Your task to perform on an android device: toggle location history Image 0: 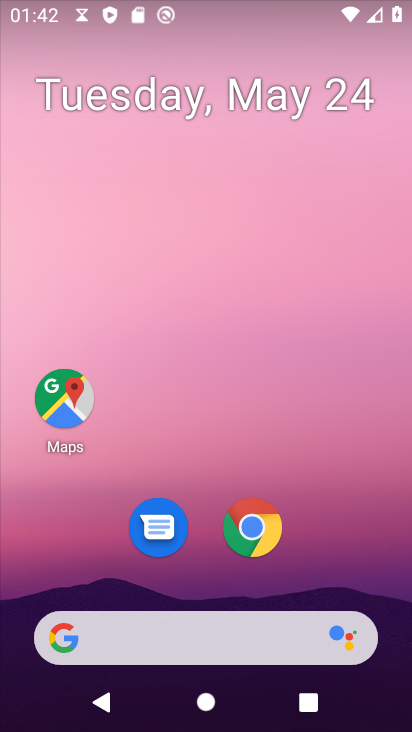
Step 0: press home button
Your task to perform on an android device: toggle location history Image 1: 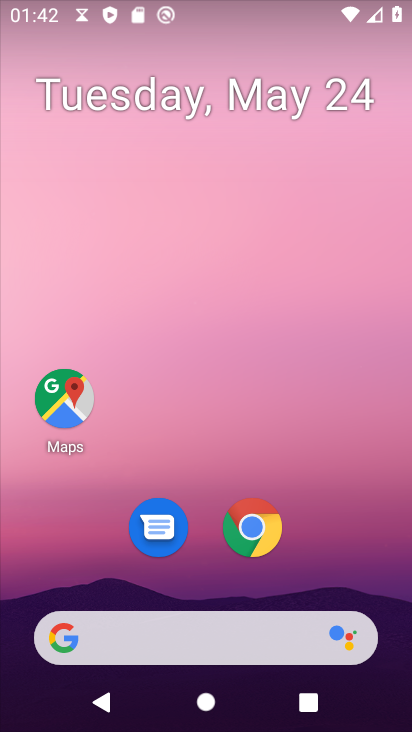
Step 1: click (60, 404)
Your task to perform on an android device: toggle location history Image 2: 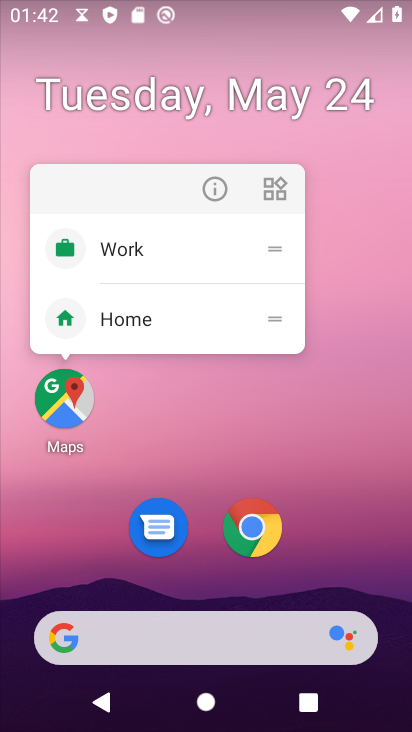
Step 2: click (60, 404)
Your task to perform on an android device: toggle location history Image 3: 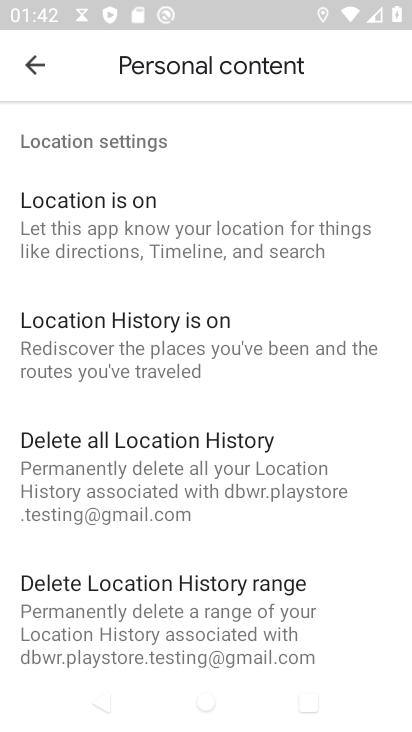
Step 3: click (168, 347)
Your task to perform on an android device: toggle location history Image 4: 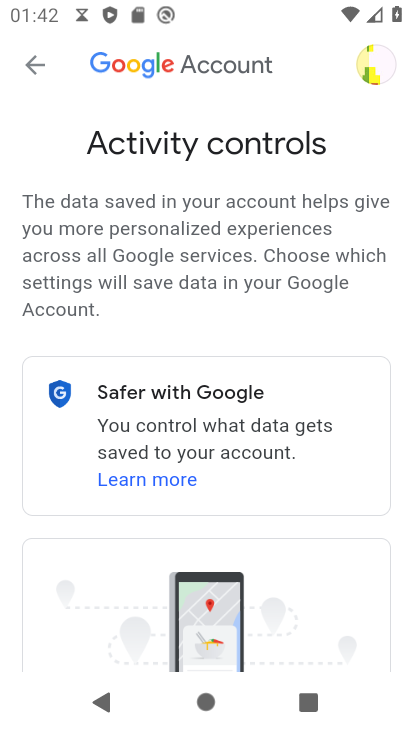
Step 4: drag from (142, 627) to (323, 267)
Your task to perform on an android device: toggle location history Image 5: 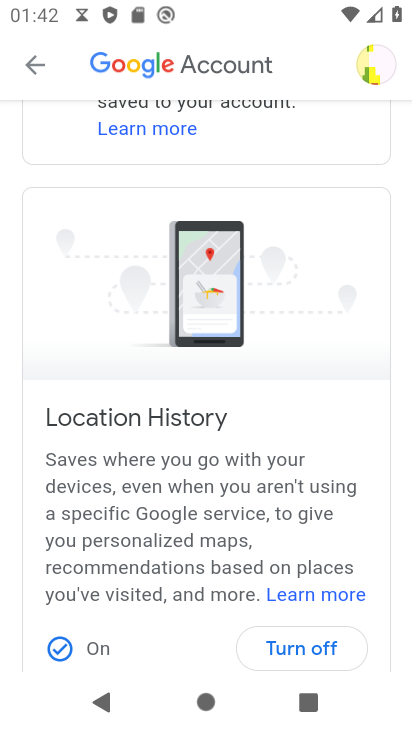
Step 5: click (310, 645)
Your task to perform on an android device: toggle location history Image 6: 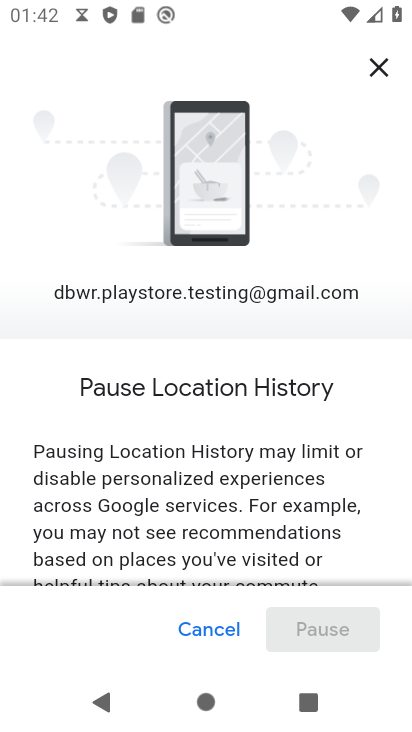
Step 6: drag from (266, 528) to (410, 187)
Your task to perform on an android device: toggle location history Image 7: 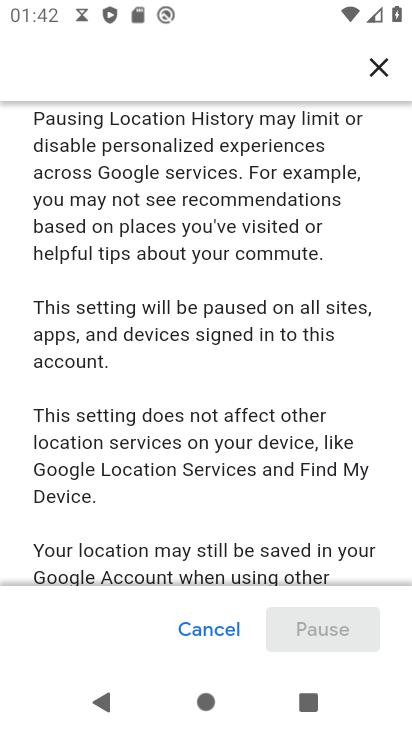
Step 7: drag from (275, 527) to (345, 182)
Your task to perform on an android device: toggle location history Image 8: 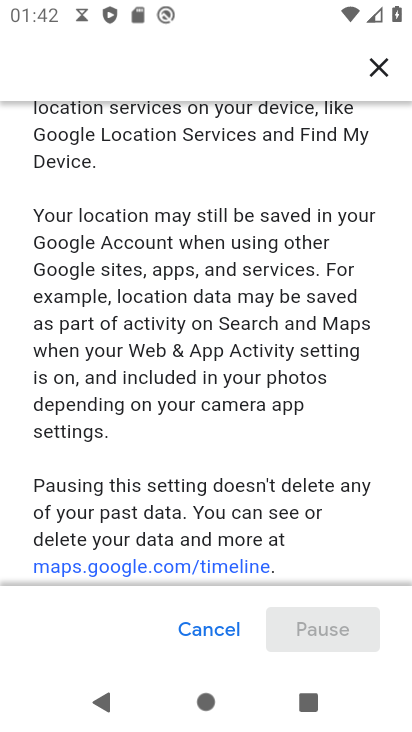
Step 8: drag from (240, 506) to (317, 229)
Your task to perform on an android device: toggle location history Image 9: 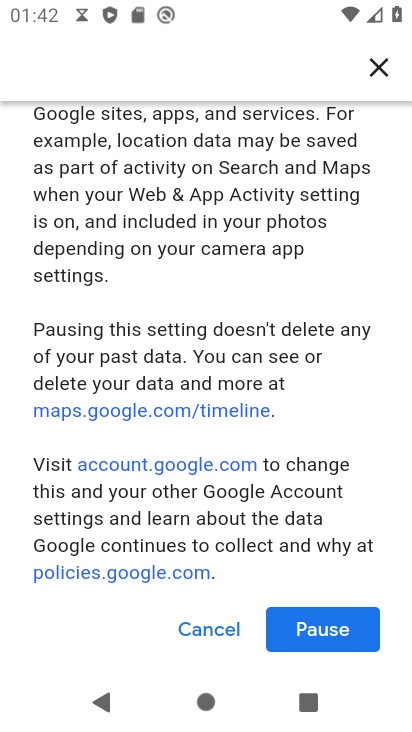
Step 9: click (325, 626)
Your task to perform on an android device: toggle location history Image 10: 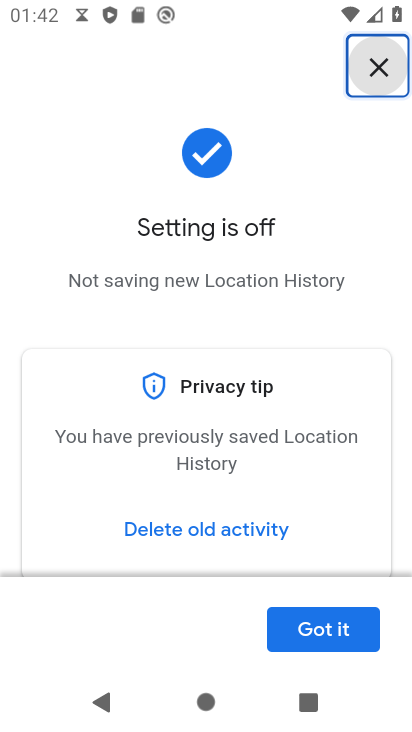
Step 10: click (329, 631)
Your task to perform on an android device: toggle location history Image 11: 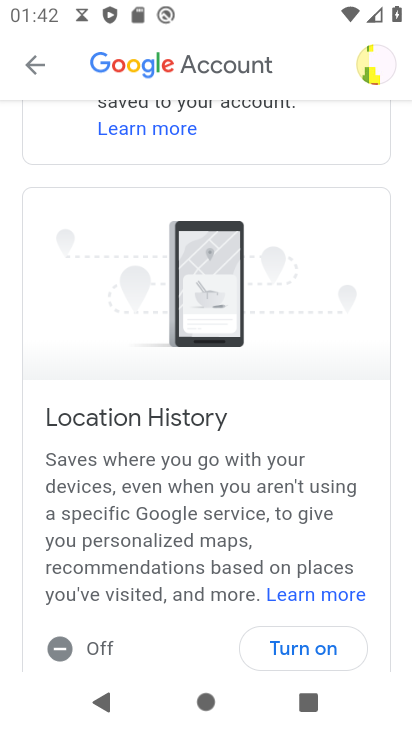
Step 11: drag from (261, 570) to (353, 299)
Your task to perform on an android device: toggle location history Image 12: 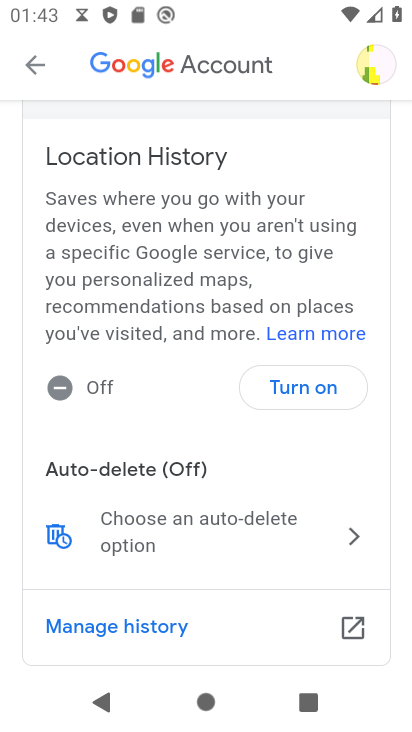
Step 12: click (317, 387)
Your task to perform on an android device: toggle location history Image 13: 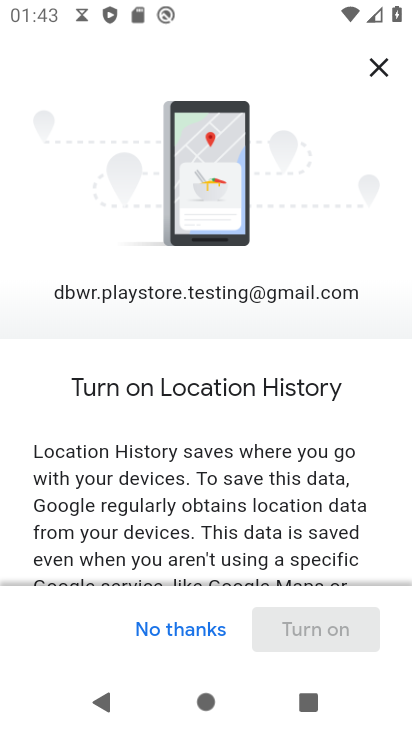
Step 13: drag from (233, 558) to (389, 103)
Your task to perform on an android device: toggle location history Image 14: 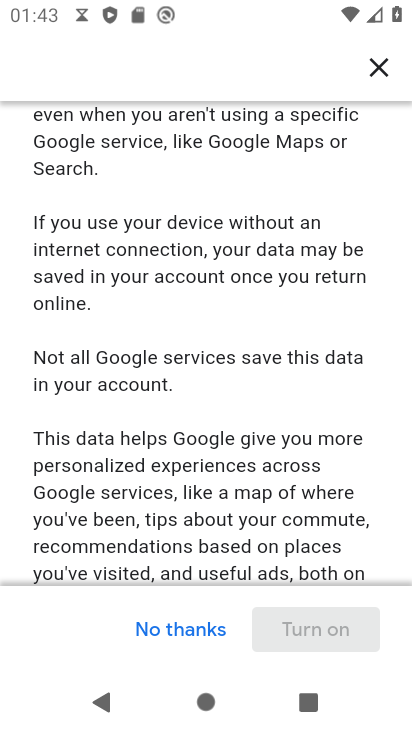
Step 14: drag from (263, 531) to (408, 57)
Your task to perform on an android device: toggle location history Image 15: 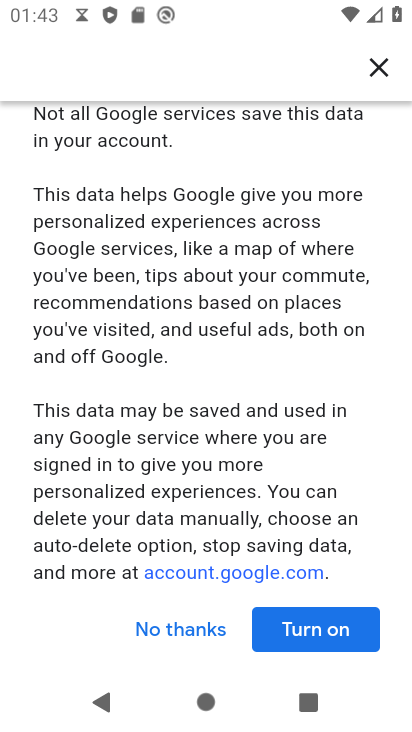
Step 15: click (313, 625)
Your task to perform on an android device: toggle location history Image 16: 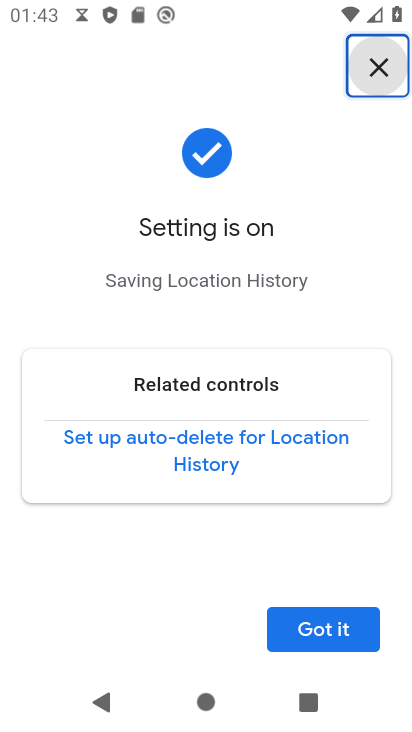
Step 16: click (313, 625)
Your task to perform on an android device: toggle location history Image 17: 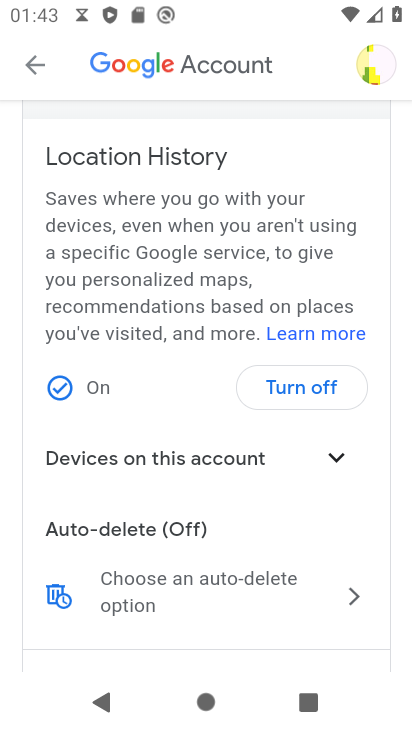
Step 17: task complete